Your task to perform on an android device: Open Chrome and go to settings Image 0: 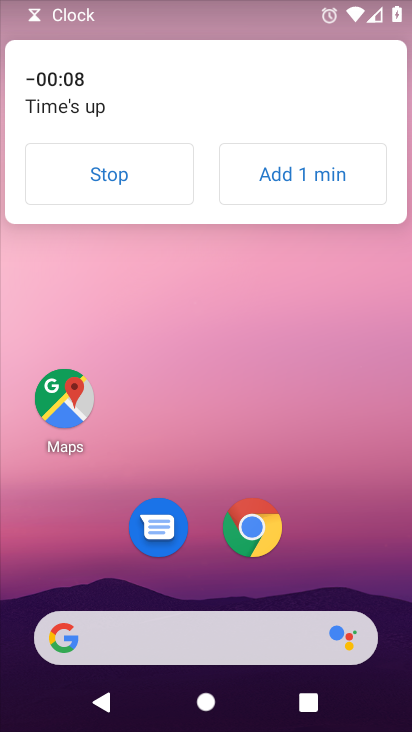
Step 0: click (104, 177)
Your task to perform on an android device: Open Chrome and go to settings Image 1: 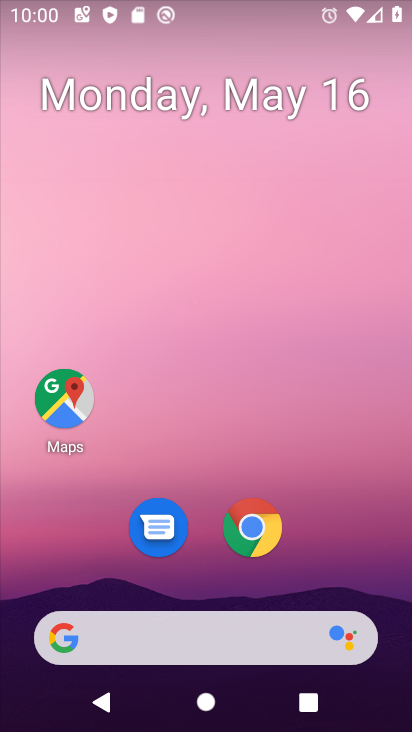
Step 1: click (254, 540)
Your task to perform on an android device: Open Chrome and go to settings Image 2: 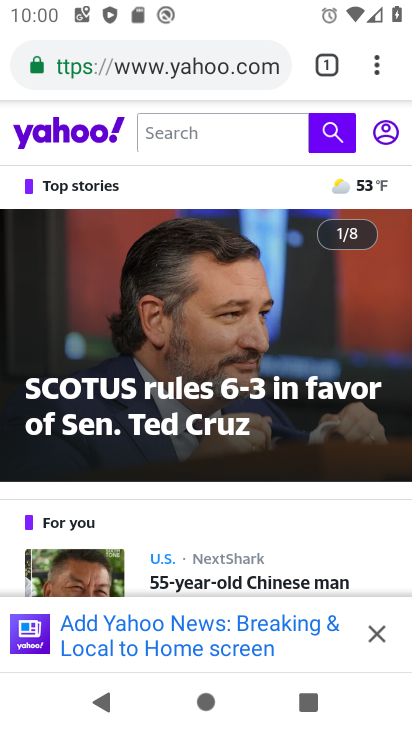
Step 2: click (377, 68)
Your task to perform on an android device: Open Chrome and go to settings Image 3: 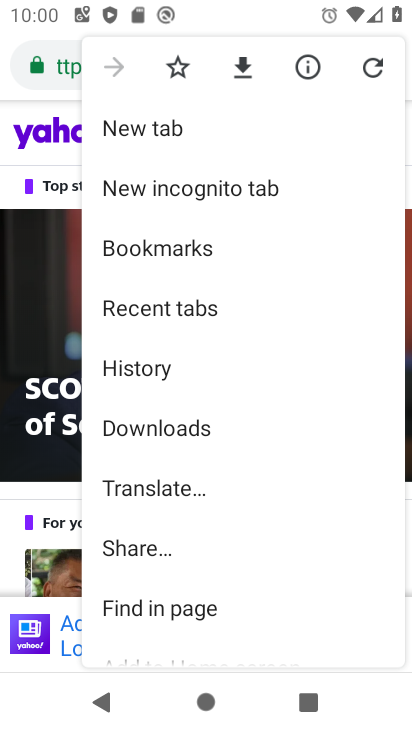
Step 3: drag from (288, 240) to (294, 141)
Your task to perform on an android device: Open Chrome and go to settings Image 4: 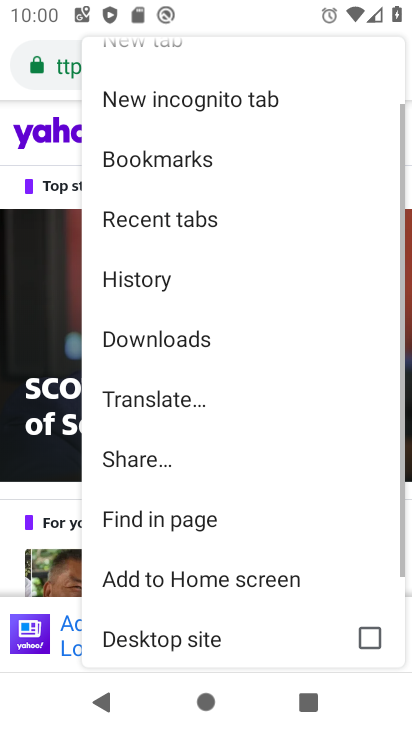
Step 4: drag from (296, 485) to (299, 204)
Your task to perform on an android device: Open Chrome and go to settings Image 5: 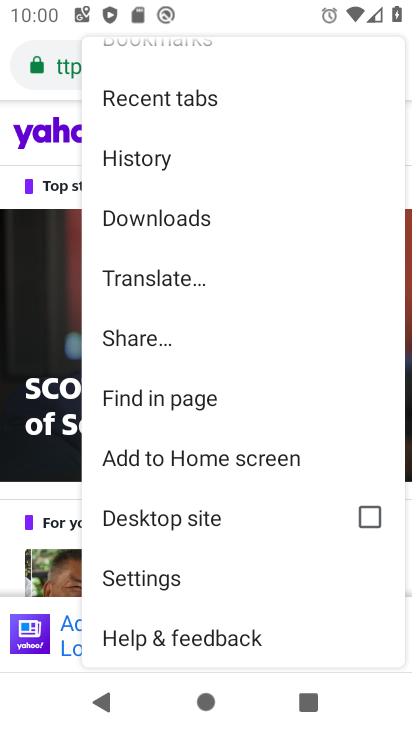
Step 5: drag from (291, 559) to (289, 216)
Your task to perform on an android device: Open Chrome and go to settings Image 6: 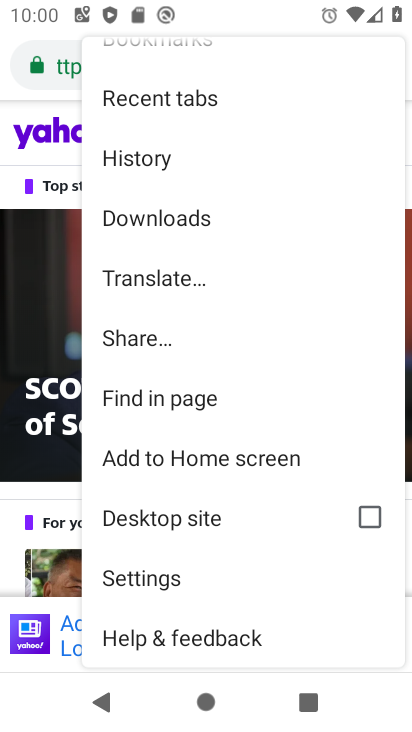
Step 6: click (139, 577)
Your task to perform on an android device: Open Chrome and go to settings Image 7: 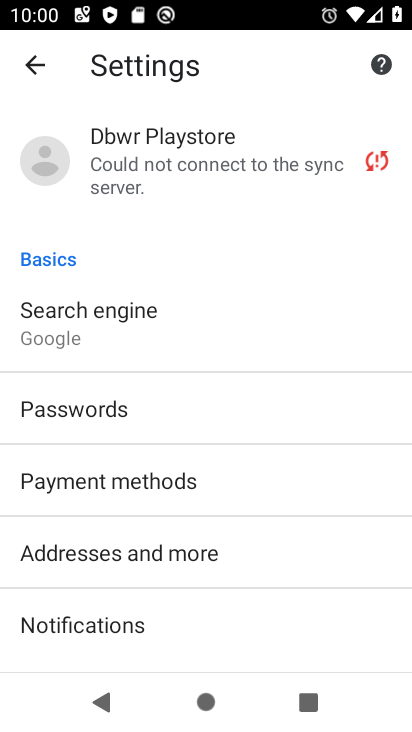
Step 7: task complete